Your task to perform on an android device: allow notifications from all sites in the chrome app Image 0: 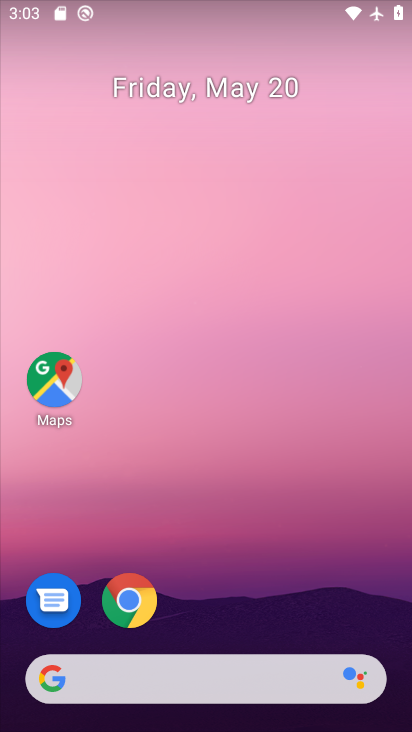
Step 0: click (139, 594)
Your task to perform on an android device: allow notifications from all sites in the chrome app Image 1: 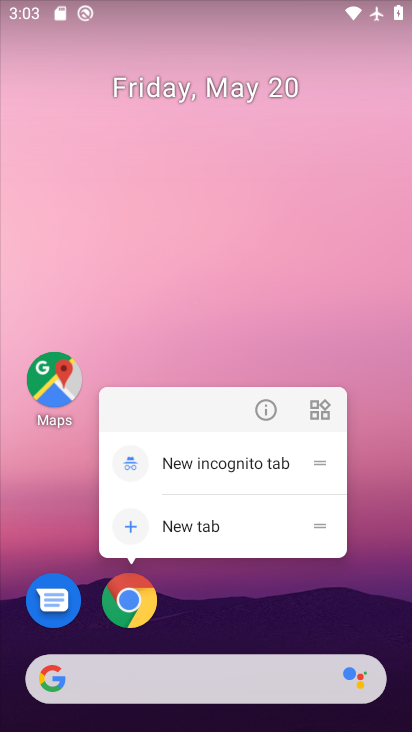
Step 1: click (133, 570)
Your task to perform on an android device: allow notifications from all sites in the chrome app Image 2: 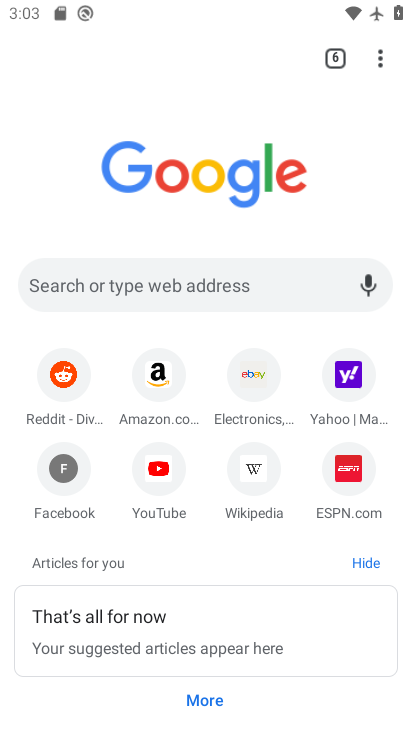
Step 2: click (385, 57)
Your task to perform on an android device: allow notifications from all sites in the chrome app Image 3: 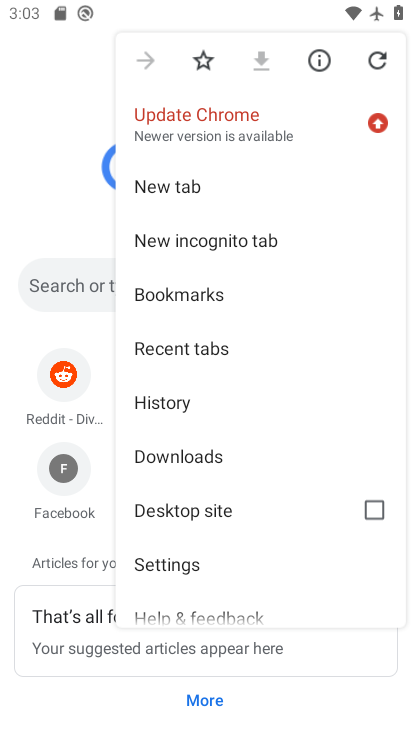
Step 3: click (204, 560)
Your task to perform on an android device: allow notifications from all sites in the chrome app Image 4: 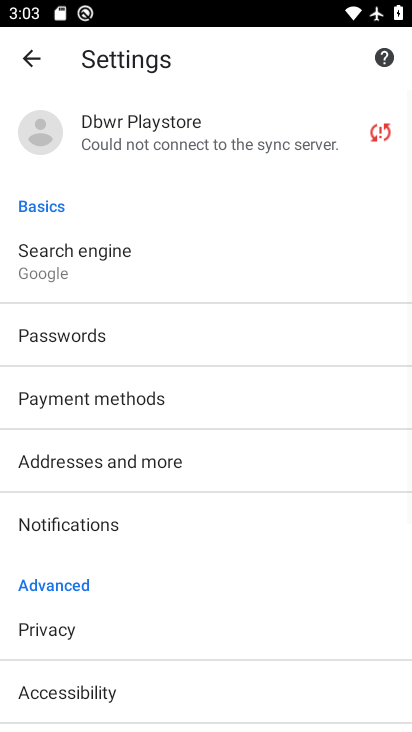
Step 4: drag from (244, 538) to (196, 180)
Your task to perform on an android device: allow notifications from all sites in the chrome app Image 5: 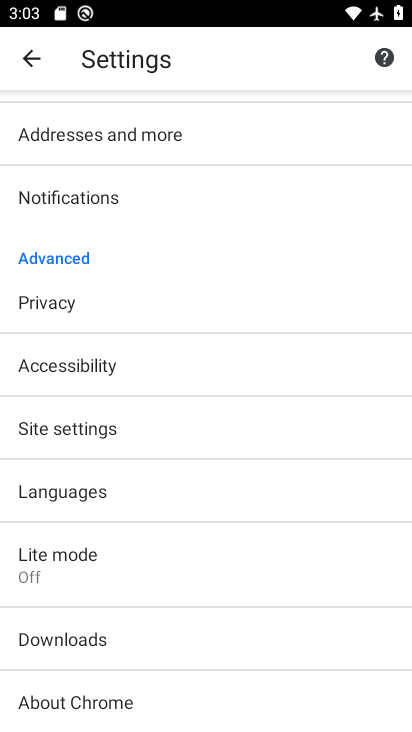
Step 5: click (158, 435)
Your task to perform on an android device: allow notifications from all sites in the chrome app Image 6: 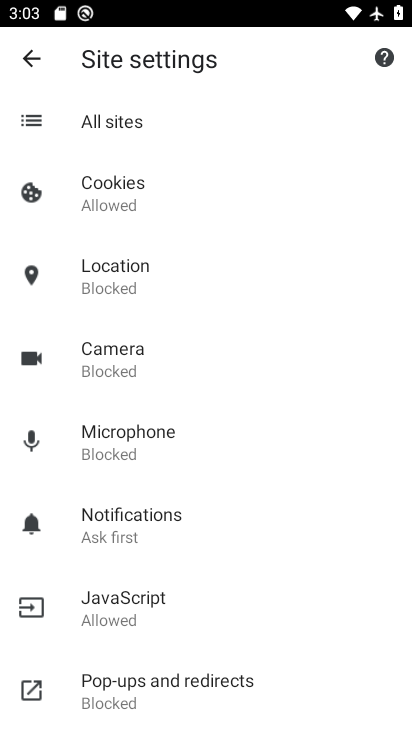
Step 6: click (208, 539)
Your task to perform on an android device: allow notifications from all sites in the chrome app Image 7: 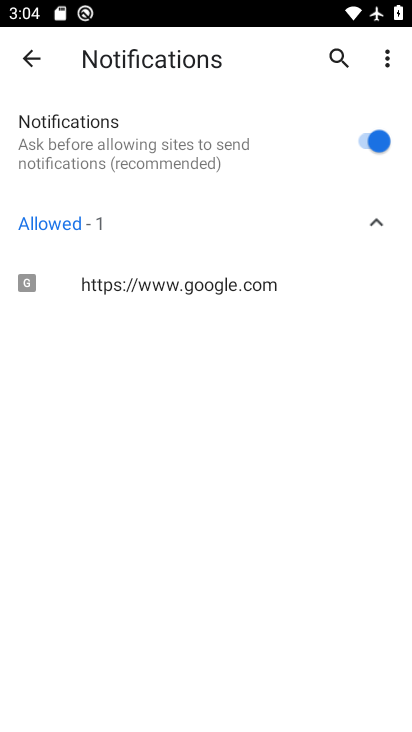
Step 7: task complete